Your task to perform on an android device: move a message to another label in the gmail app Image 0: 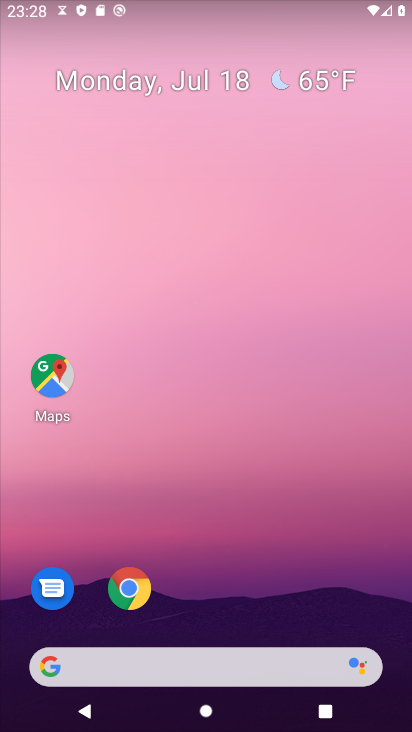
Step 0: press home button
Your task to perform on an android device: move a message to another label in the gmail app Image 1: 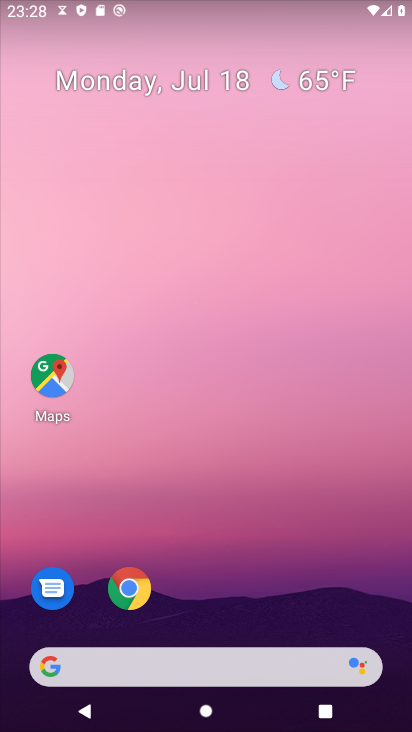
Step 1: drag from (302, 590) to (265, 1)
Your task to perform on an android device: move a message to another label in the gmail app Image 2: 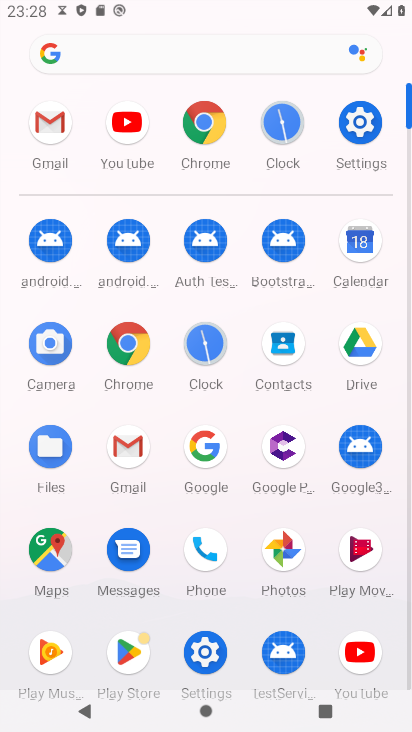
Step 2: click (49, 168)
Your task to perform on an android device: move a message to another label in the gmail app Image 3: 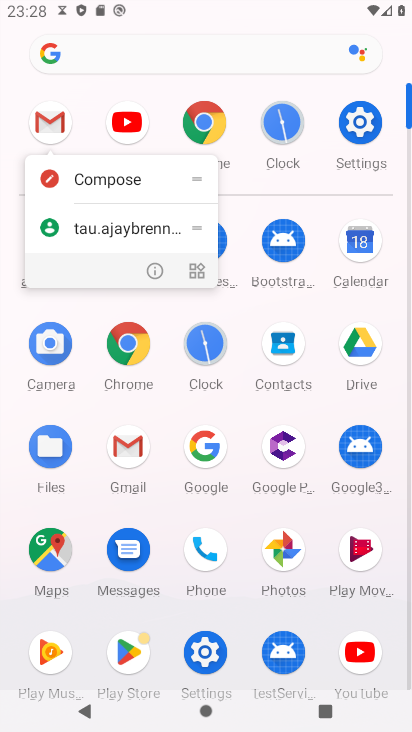
Step 3: click (61, 123)
Your task to perform on an android device: move a message to another label in the gmail app Image 4: 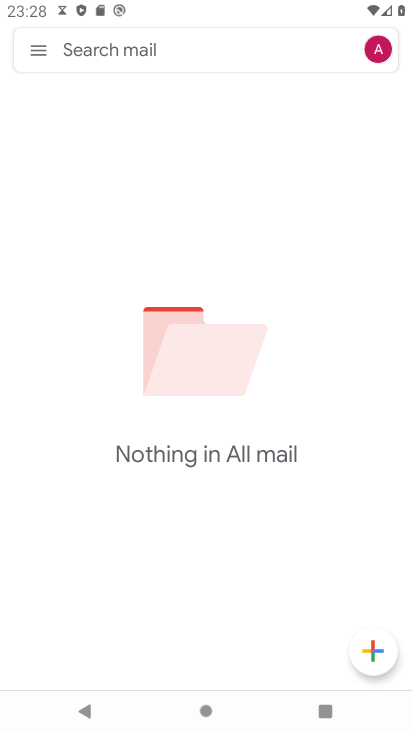
Step 4: click (29, 50)
Your task to perform on an android device: move a message to another label in the gmail app Image 5: 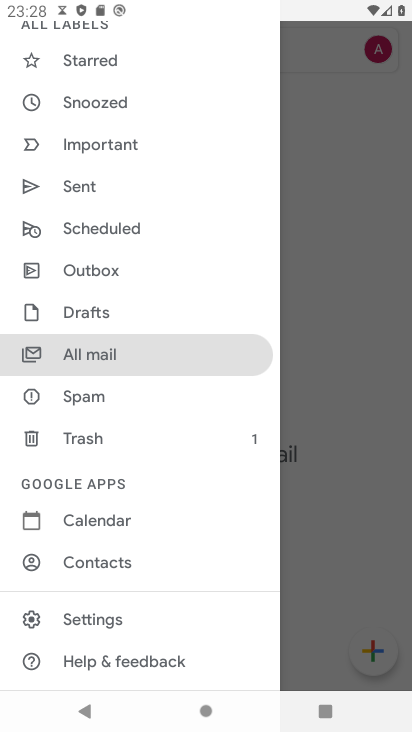
Step 5: click (109, 348)
Your task to perform on an android device: move a message to another label in the gmail app Image 6: 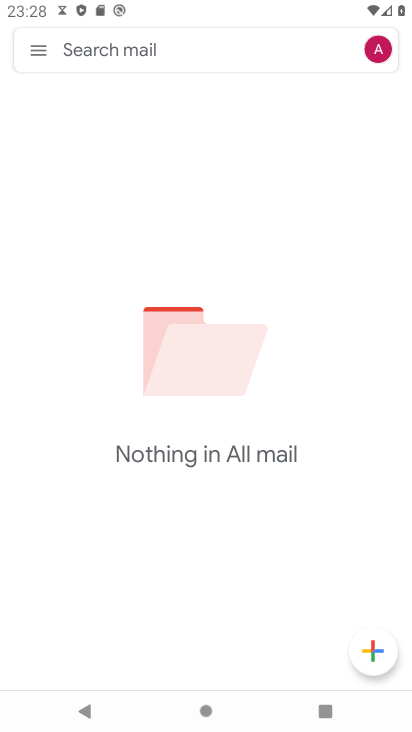
Step 6: task complete